Your task to perform on an android device: allow notifications from all sites in the chrome app Image 0: 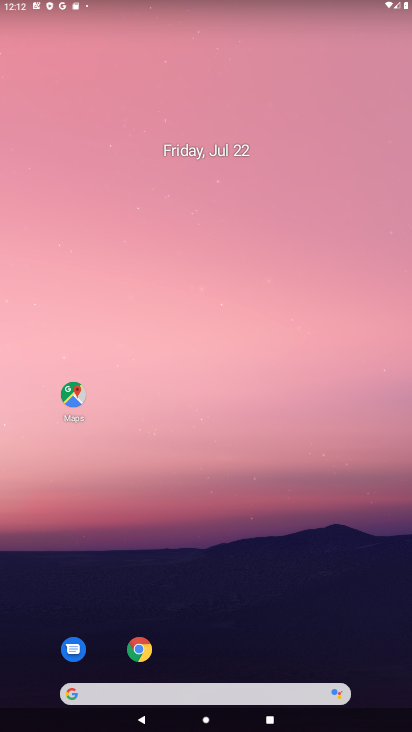
Step 0: click (138, 651)
Your task to perform on an android device: allow notifications from all sites in the chrome app Image 1: 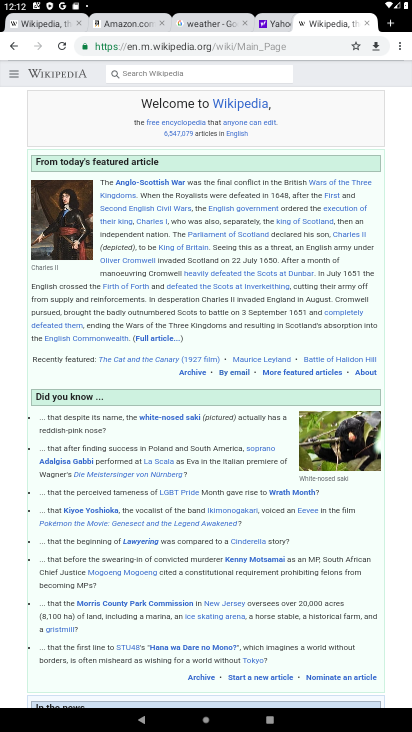
Step 1: click (398, 49)
Your task to perform on an android device: allow notifications from all sites in the chrome app Image 2: 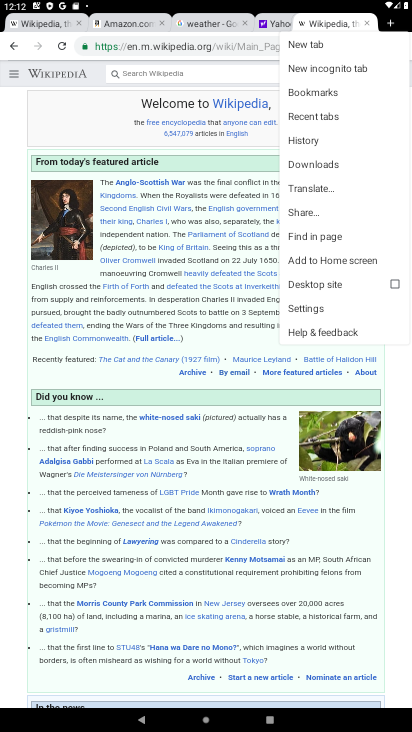
Step 2: click (309, 307)
Your task to perform on an android device: allow notifications from all sites in the chrome app Image 3: 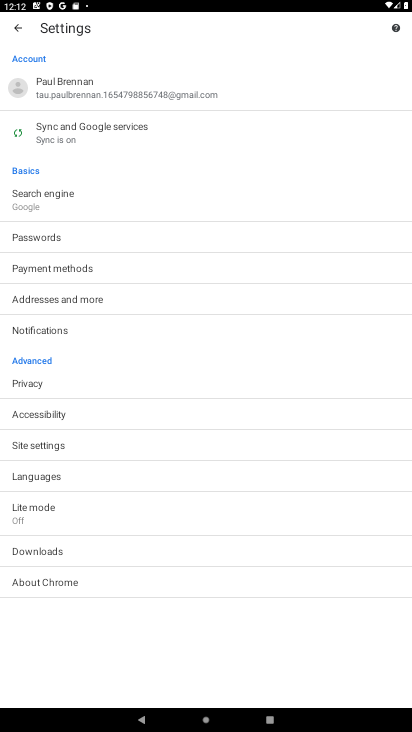
Step 3: click (33, 328)
Your task to perform on an android device: allow notifications from all sites in the chrome app Image 4: 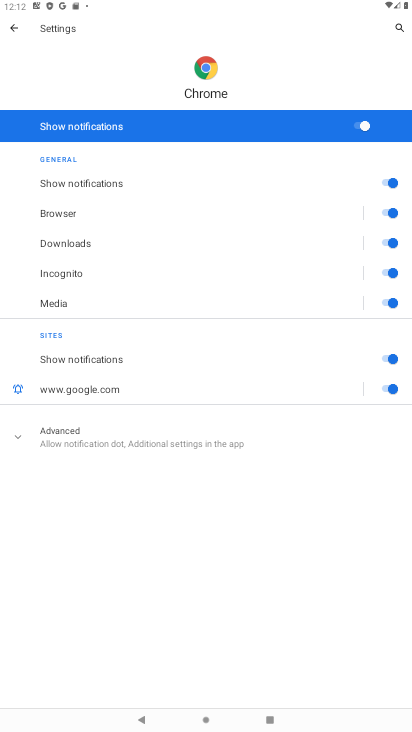
Step 4: task complete